Your task to perform on an android device: open app "HBO Max: Stream TV & Movies" (install if not already installed) Image 0: 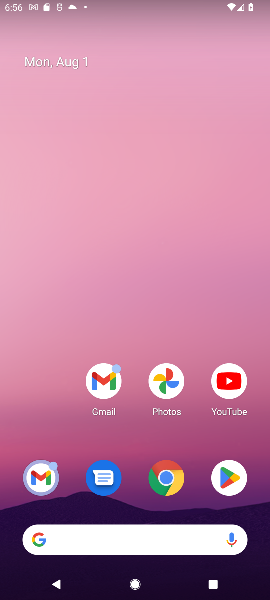
Step 0: press home button
Your task to perform on an android device: open app "HBO Max: Stream TV & Movies" (install if not already installed) Image 1: 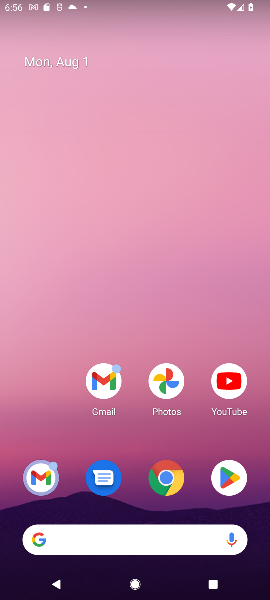
Step 1: click (233, 482)
Your task to perform on an android device: open app "HBO Max: Stream TV & Movies" (install if not already installed) Image 2: 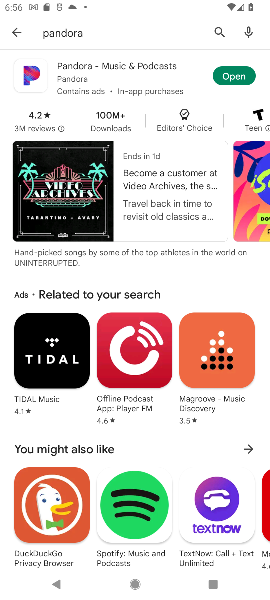
Step 2: click (211, 30)
Your task to perform on an android device: open app "HBO Max: Stream TV & Movies" (install if not already installed) Image 3: 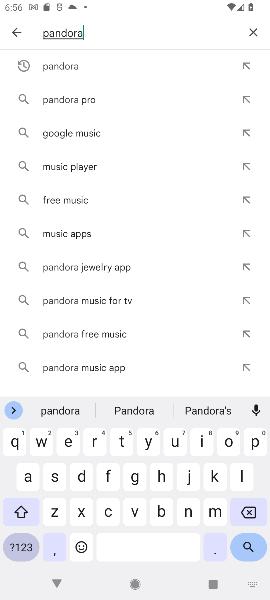
Step 3: click (250, 33)
Your task to perform on an android device: open app "HBO Max: Stream TV & Movies" (install if not already installed) Image 4: 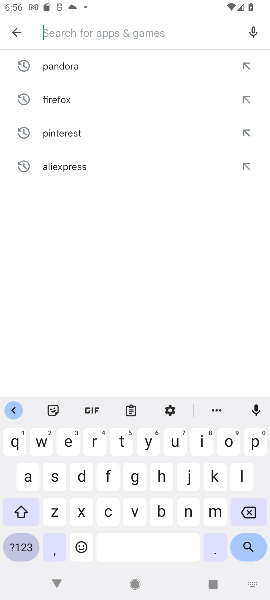
Step 4: click (154, 483)
Your task to perform on an android device: open app "HBO Max: Stream TV & Movies" (install if not already installed) Image 5: 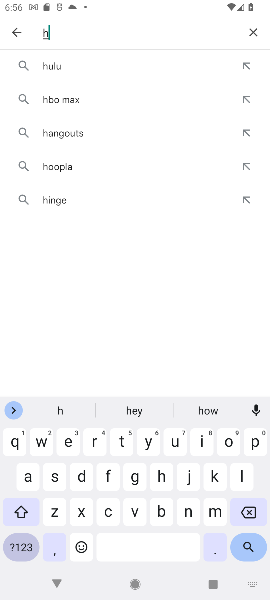
Step 5: click (156, 514)
Your task to perform on an android device: open app "HBO Max: Stream TV & Movies" (install if not already installed) Image 6: 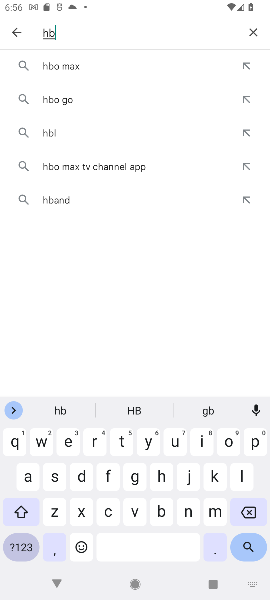
Step 6: click (226, 442)
Your task to perform on an android device: open app "HBO Max: Stream TV & Movies" (install if not already installed) Image 7: 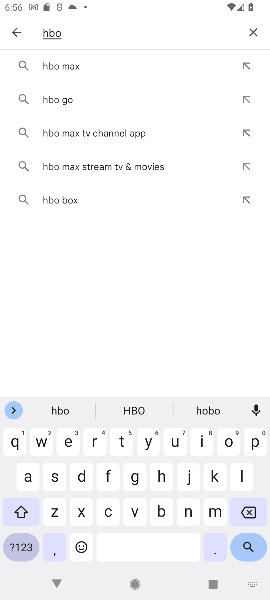
Step 7: click (57, 64)
Your task to perform on an android device: open app "HBO Max: Stream TV & Movies" (install if not already installed) Image 8: 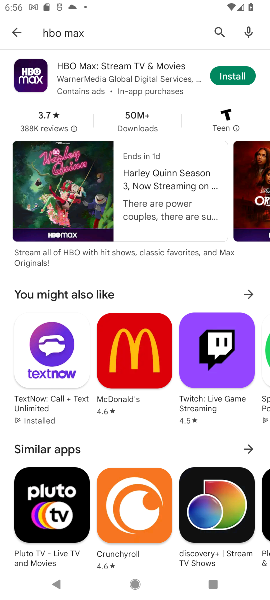
Step 8: click (221, 78)
Your task to perform on an android device: open app "HBO Max: Stream TV & Movies" (install if not already installed) Image 9: 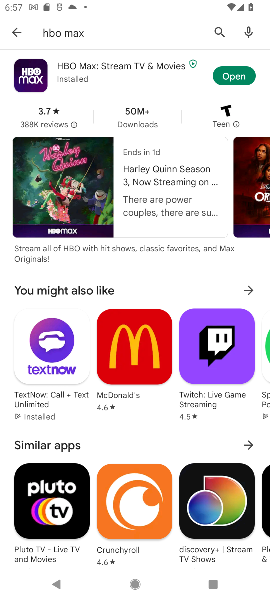
Step 9: click (232, 74)
Your task to perform on an android device: open app "HBO Max: Stream TV & Movies" (install if not already installed) Image 10: 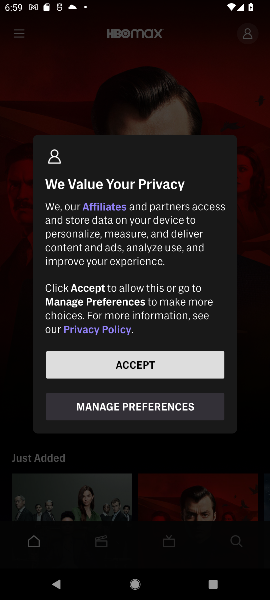
Step 10: task complete